Your task to perform on an android device: What's on my calendar today? Image 0: 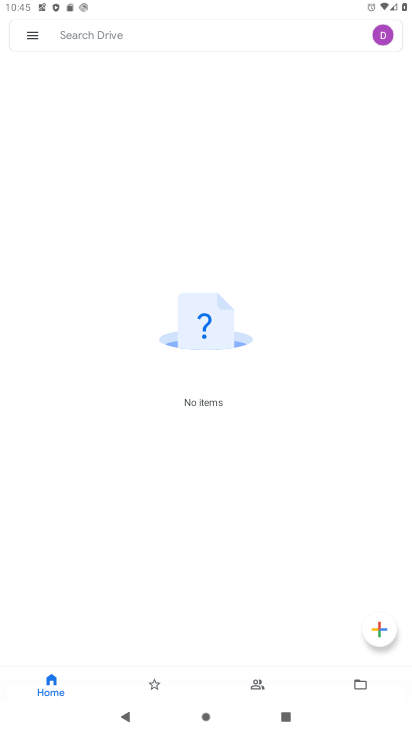
Step 0: press home button
Your task to perform on an android device: What's on my calendar today? Image 1: 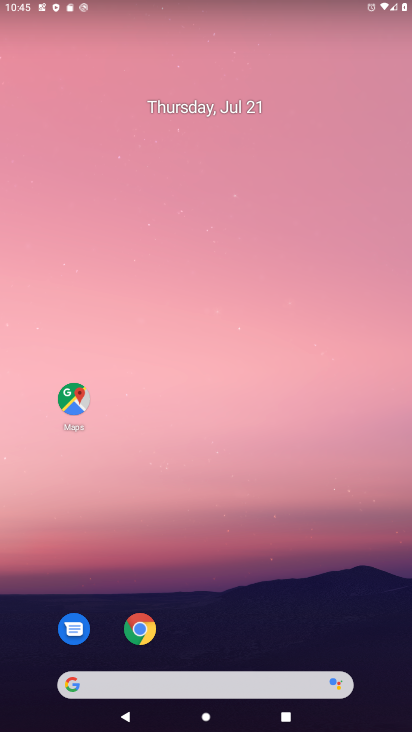
Step 1: drag from (297, 609) to (382, 109)
Your task to perform on an android device: What's on my calendar today? Image 2: 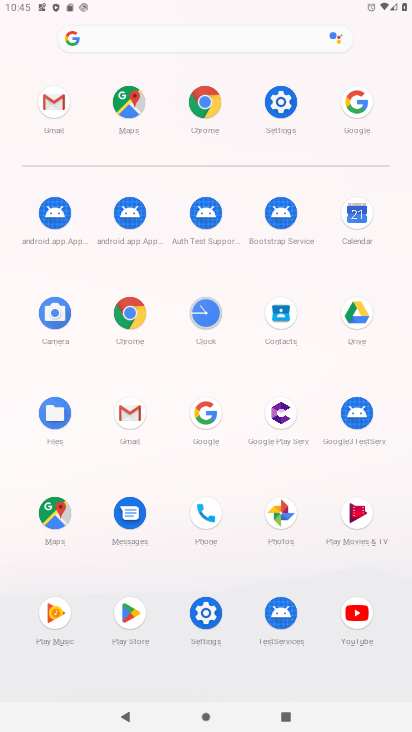
Step 2: click (357, 212)
Your task to perform on an android device: What's on my calendar today? Image 3: 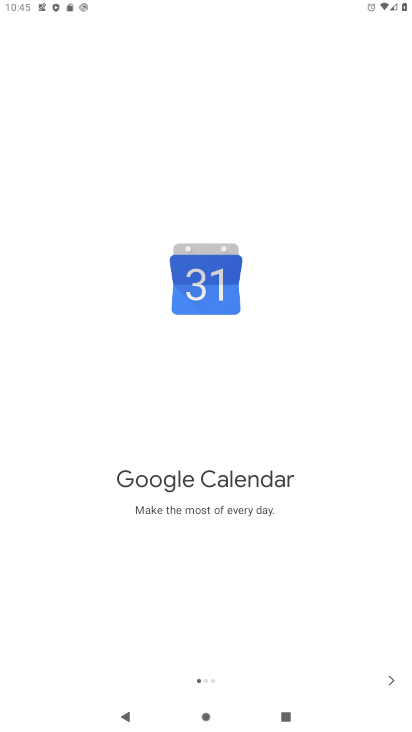
Step 3: click (380, 684)
Your task to perform on an android device: What's on my calendar today? Image 4: 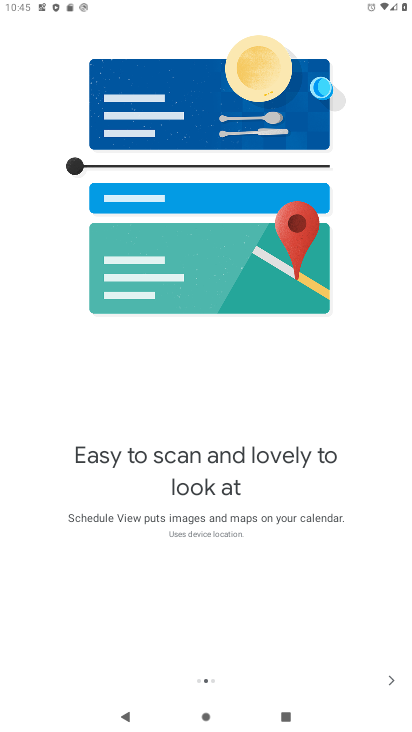
Step 4: click (380, 684)
Your task to perform on an android device: What's on my calendar today? Image 5: 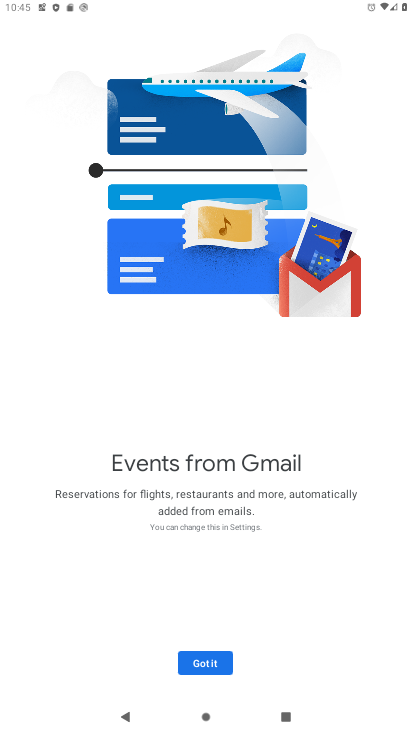
Step 5: click (184, 664)
Your task to perform on an android device: What's on my calendar today? Image 6: 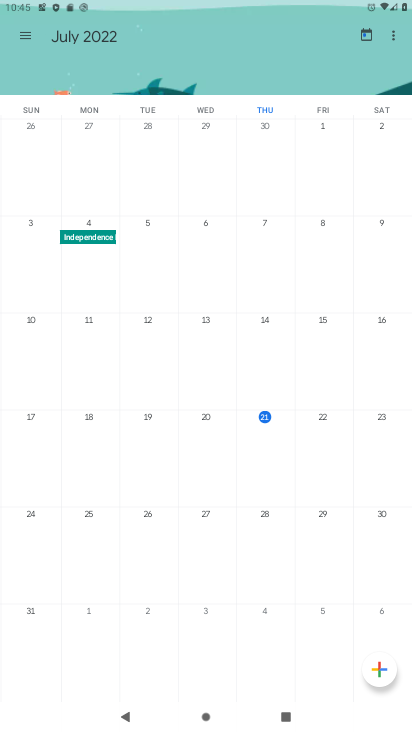
Step 6: click (322, 415)
Your task to perform on an android device: What's on my calendar today? Image 7: 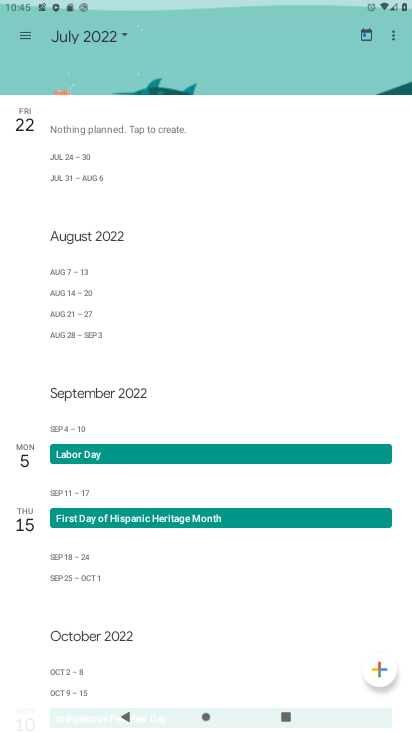
Step 7: task complete